Your task to perform on an android device: open device folders in google photos Image 0: 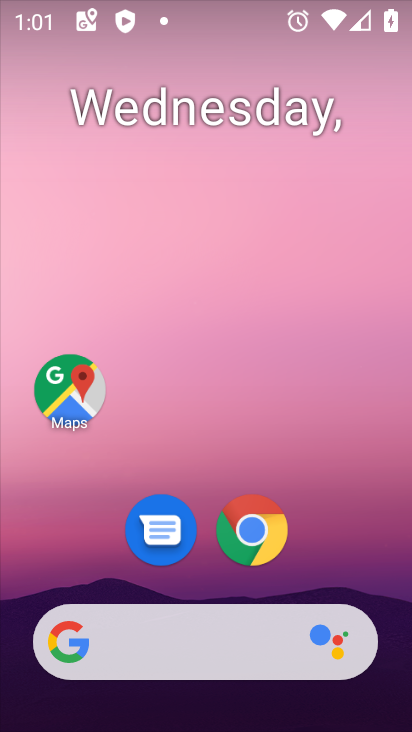
Step 0: drag from (217, 587) to (231, 190)
Your task to perform on an android device: open device folders in google photos Image 1: 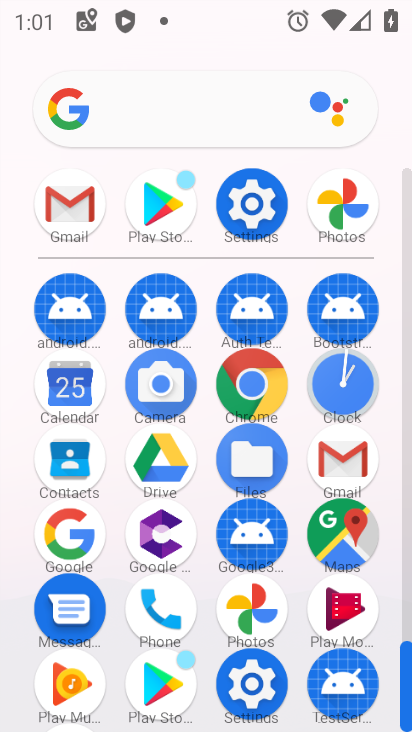
Step 1: click (252, 613)
Your task to perform on an android device: open device folders in google photos Image 2: 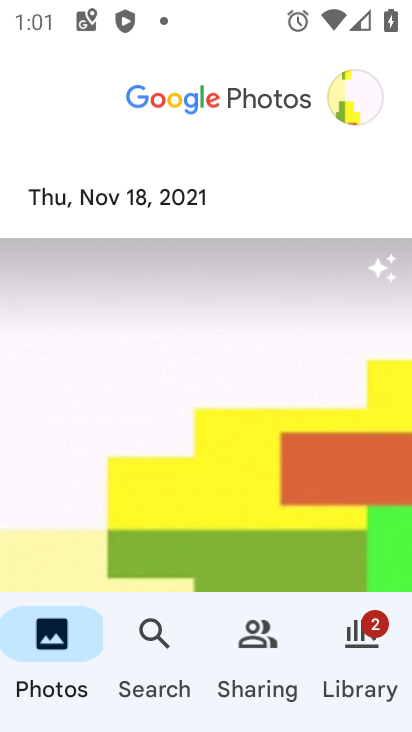
Step 2: click (159, 649)
Your task to perform on an android device: open device folders in google photos Image 3: 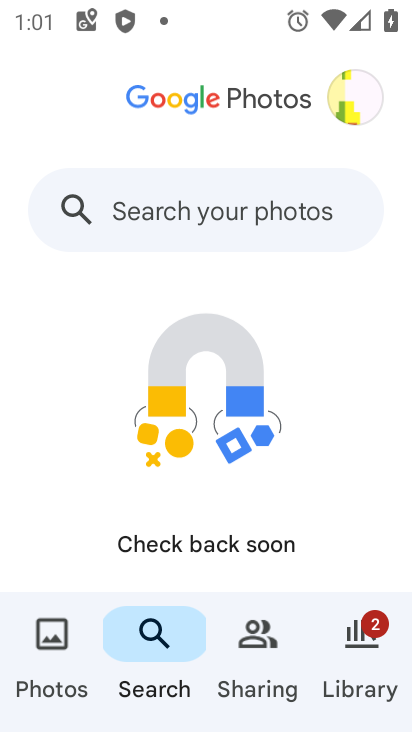
Step 3: click (150, 206)
Your task to perform on an android device: open device folders in google photos Image 4: 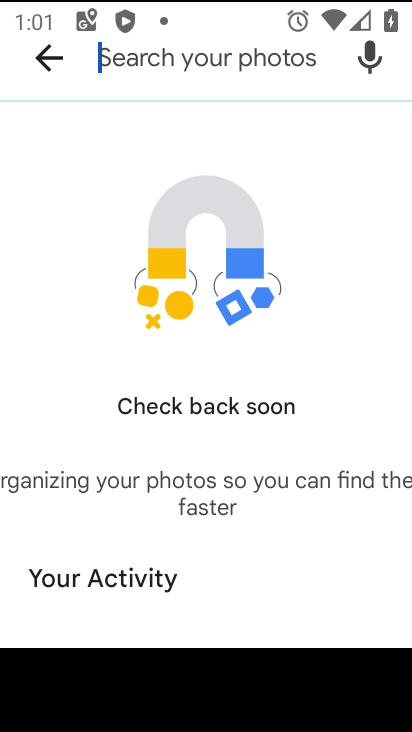
Step 4: type "device folder"
Your task to perform on an android device: open device folders in google photos Image 5: 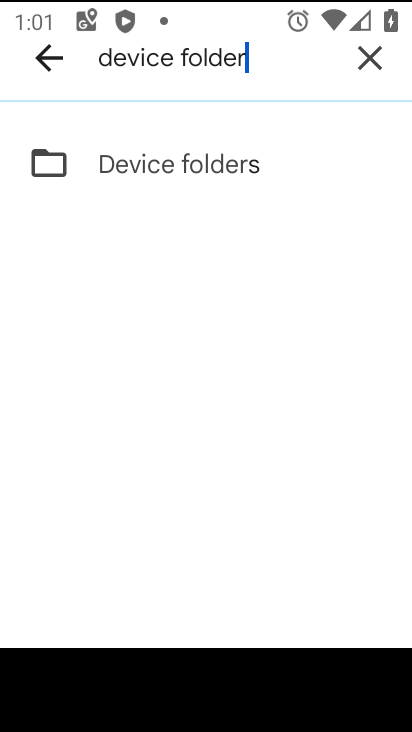
Step 5: click (120, 177)
Your task to perform on an android device: open device folders in google photos Image 6: 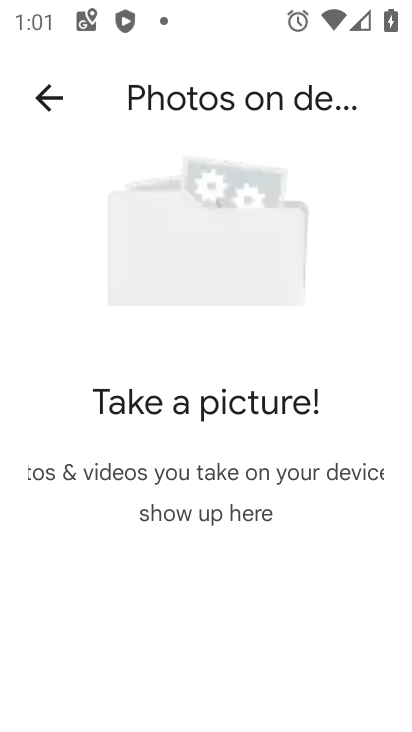
Step 6: task complete